Your task to perform on an android device: Open Google Chrome Image 0: 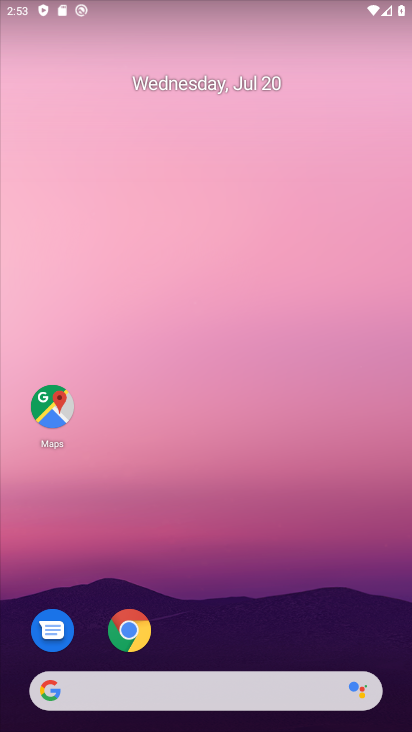
Step 0: drag from (257, 712) to (210, 133)
Your task to perform on an android device: Open Google Chrome Image 1: 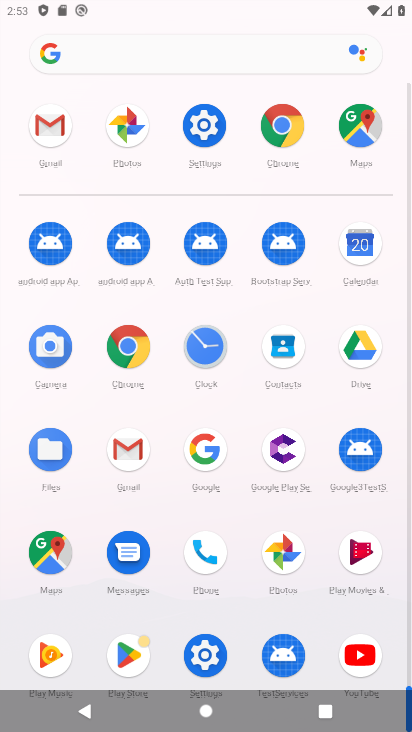
Step 1: click (283, 129)
Your task to perform on an android device: Open Google Chrome Image 2: 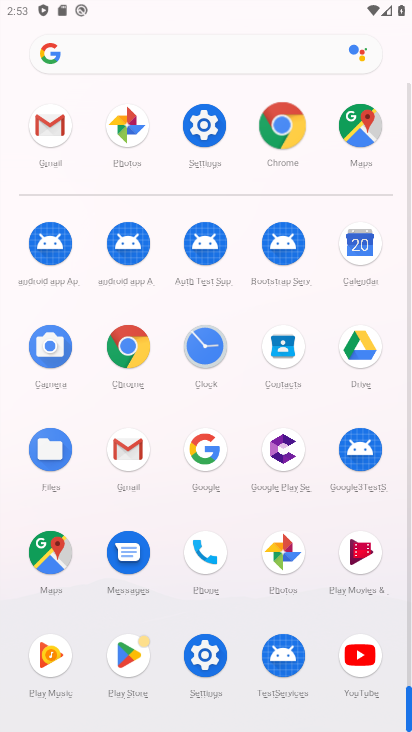
Step 2: click (283, 129)
Your task to perform on an android device: Open Google Chrome Image 3: 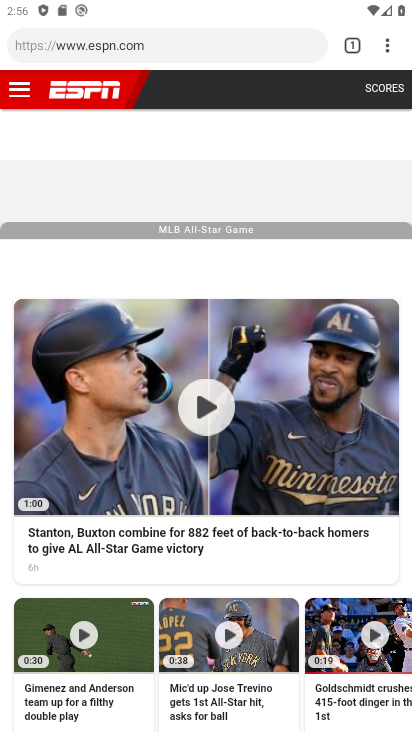
Step 3: press back button
Your task to perform on an android device: Open Google Chrome Image 4: 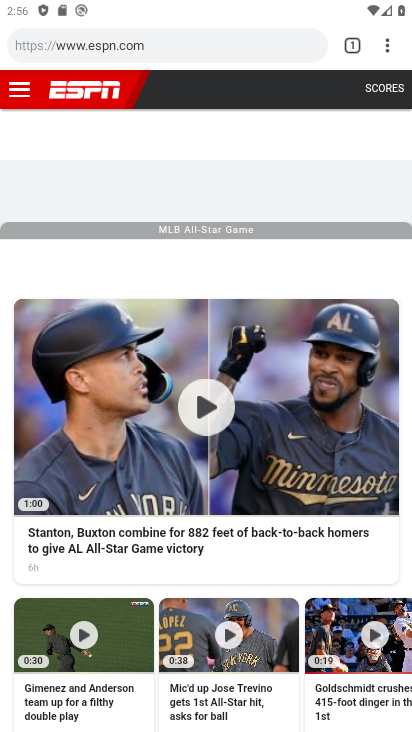
Step 4: press back button
Your task to perform on an android device: Open Google Chrome Image 5: 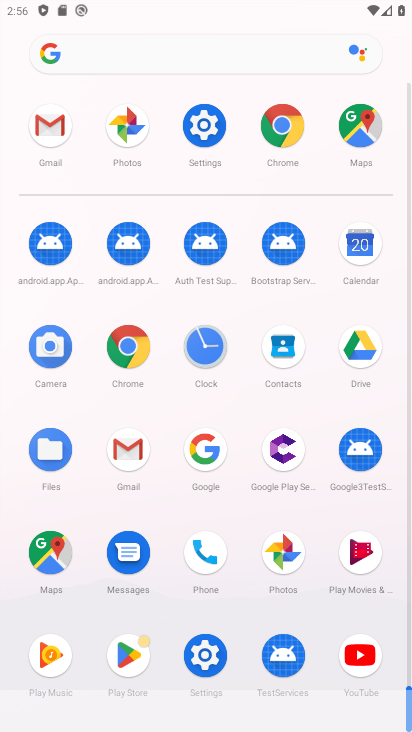
Step 5: click (277, 123)
Your task to perform on an android device: Open Google Chrome Image 6: 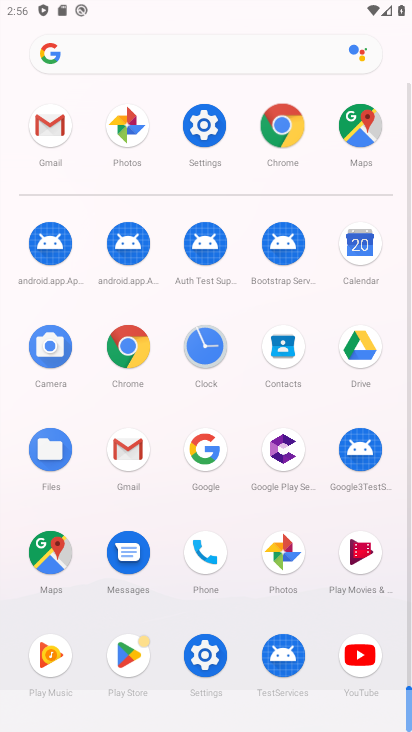
Step 6: click (277, 123)
Your task to perform on an android device: Open Google Chrome Image 7: 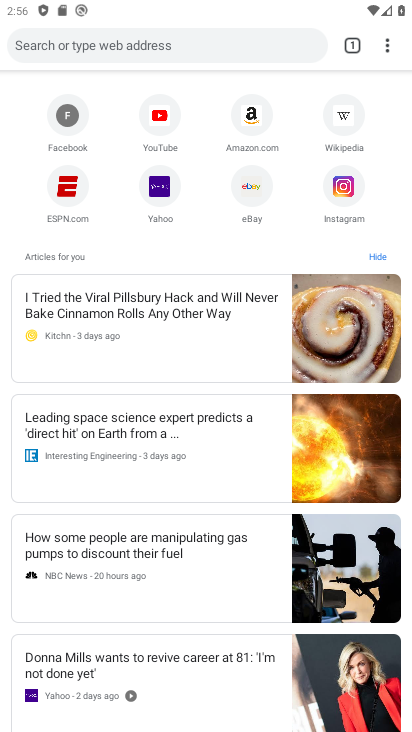
Step 7: task complete